Your task to perform on an android device: Open Google Maps and go to "Timeline" Image 0: 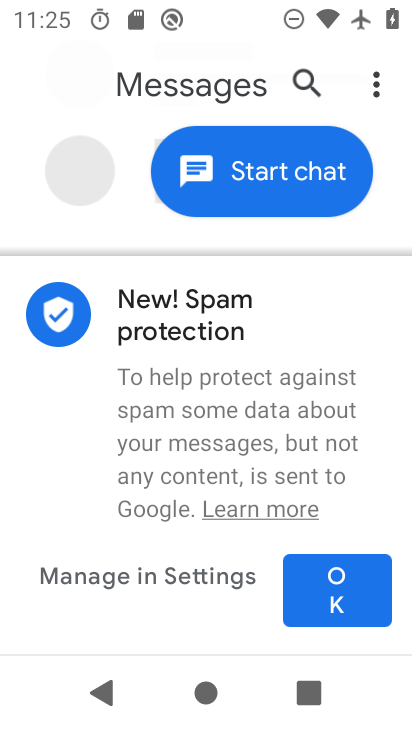
Step 0: press home button
Your task to perform on an android device: Open Google Maps and go to "Timeline" Image 1: 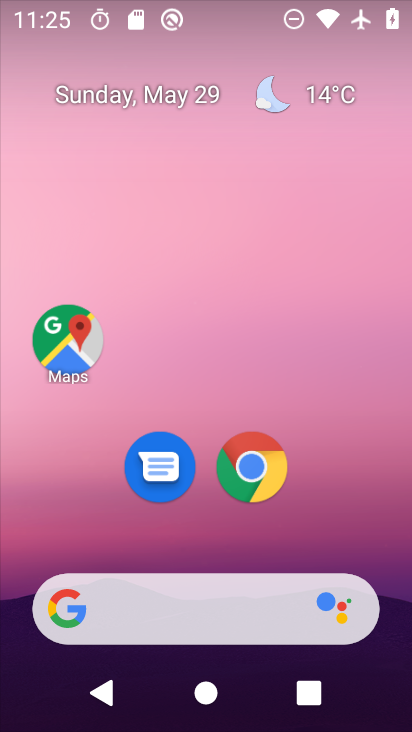
Step 1: click (54, 361)
Your task to perform on an android device: Open Google Maps and go to "Timeline" Image 2: 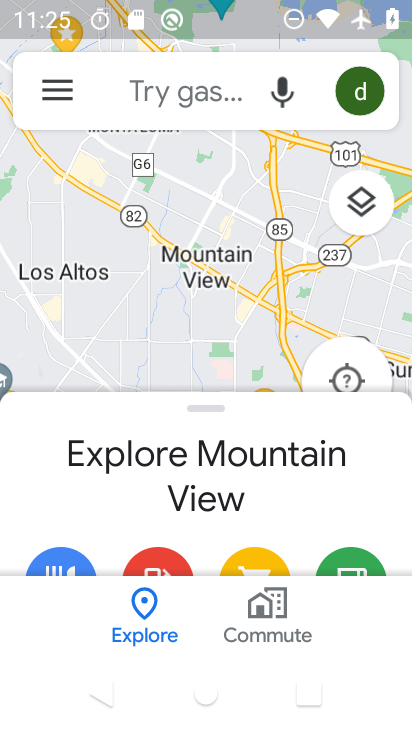
Step 2: click (67, 88)
Your task to perform on an android device: Open Google Maps and go to "Timeline" Image 3: 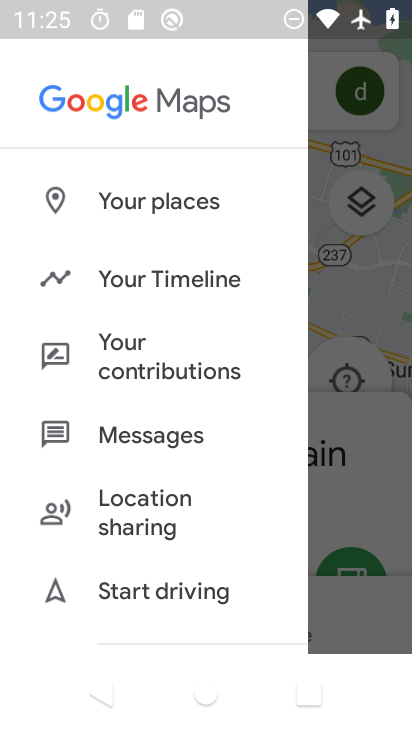
Step 3: click (154, 270)
Your task to perform on an android device: Open Google Maps and go to "Timeline" Image 4: 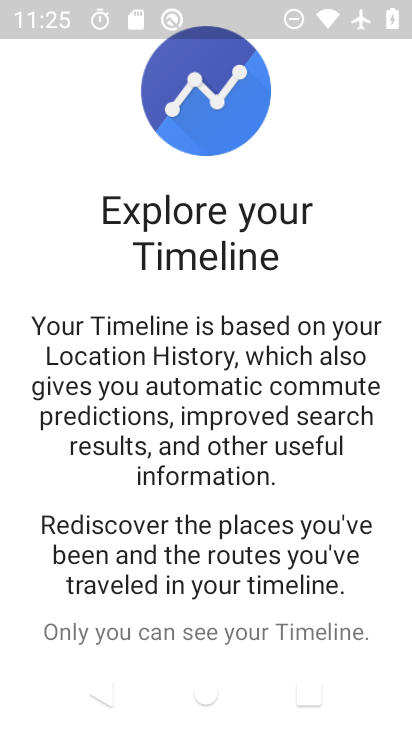
Step 4: drag from (255, 610) to (243, 324)
Your task to perform on an android device: Open Google Maps and go to "Timeline" Image 5: 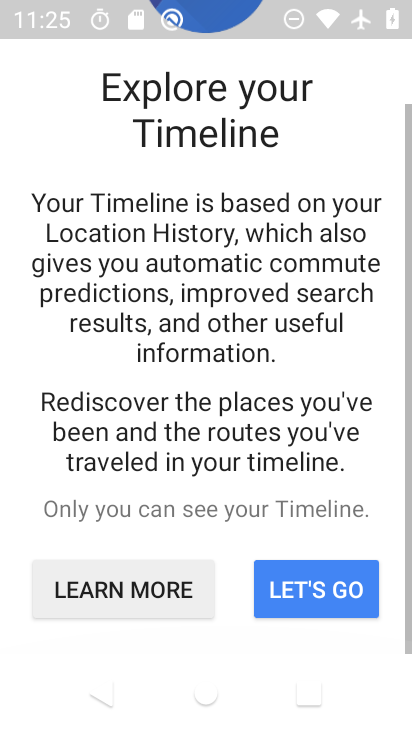
Step 5: click (300, 611)
Your task to perform on an android device: Open Google Maps and go to "Timeline" Image 6: 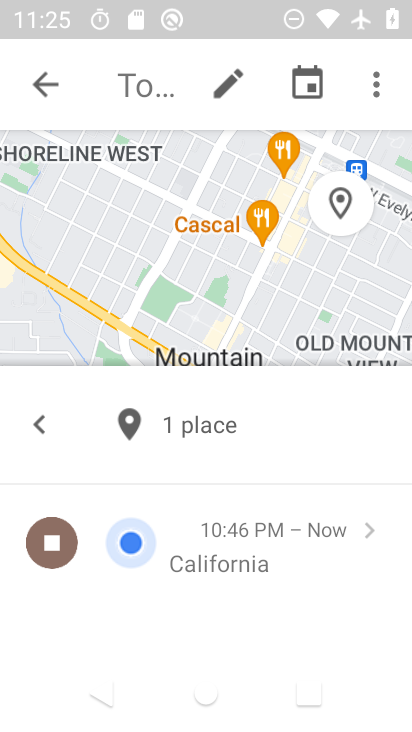
Step 6: task complete